Your task to perform on an android device: Show me popular games on the Play Store Image 0: 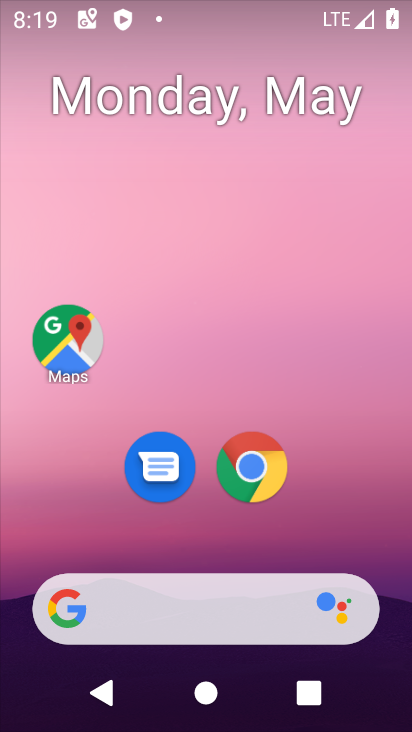
Step 0: drag from (315, 407) to (239, 0)
Your task to perform on an android device: Show me popular games on the Play Store Image 1: 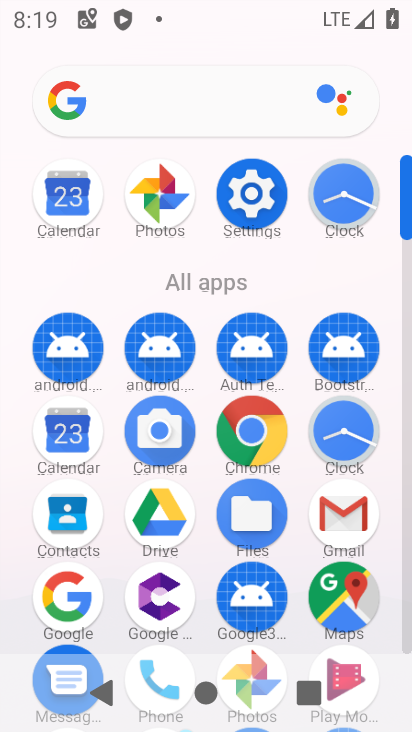
Step 1: drag from (204, 469) to (204, 194)
Your task to perform on an android device: Show me popular games on the Play Store Image 2: 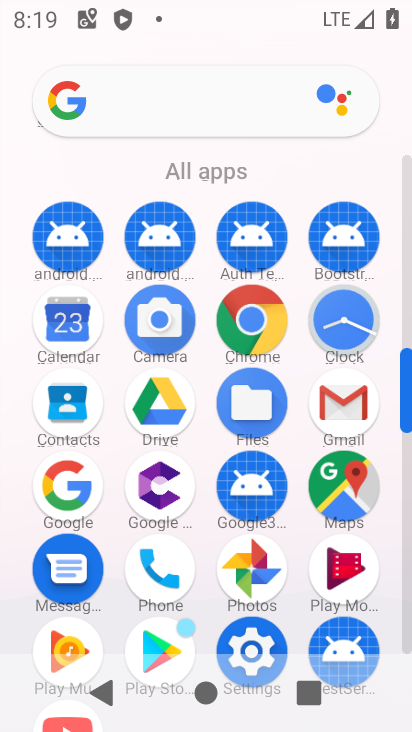
Step 2: click (170, 626)
Your task to perform on an android device: Show me popular games on the Play Store Image 3: 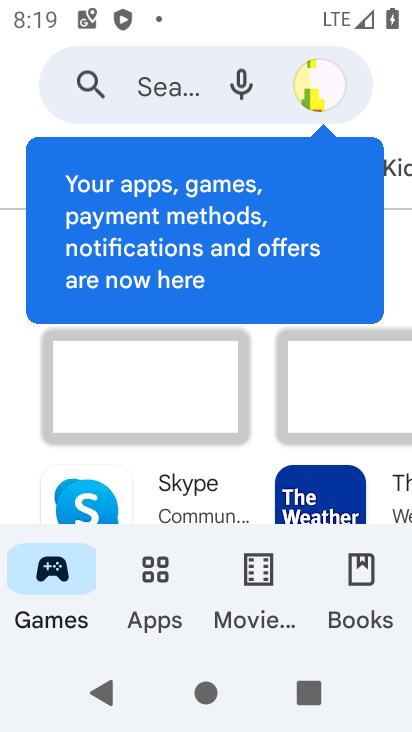
Step 3: click (24, 115)
Your task to perform on an android device: Show me popular games on the Play Store Image 4: 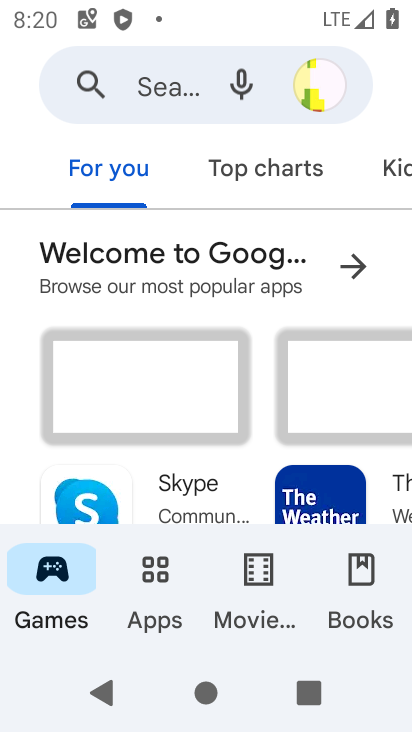
Step 4: click (238, 163)
Your task to perform on an android device: Show me popular games on the Play Store Image 5: 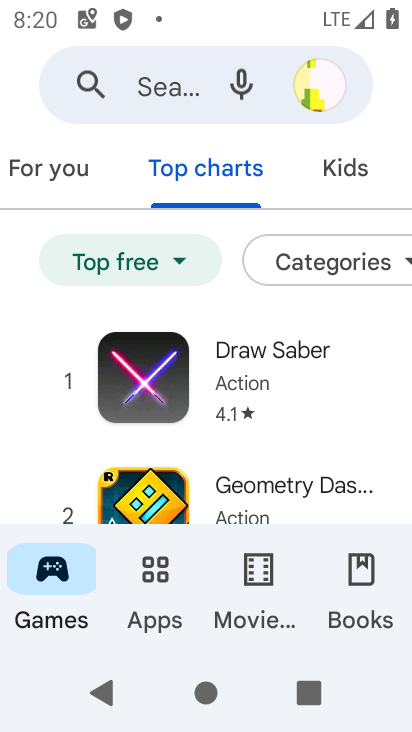
Step 5: task complete